Your task to perform on an android device: Open Google Maps and go to "Timeline" Image 0: 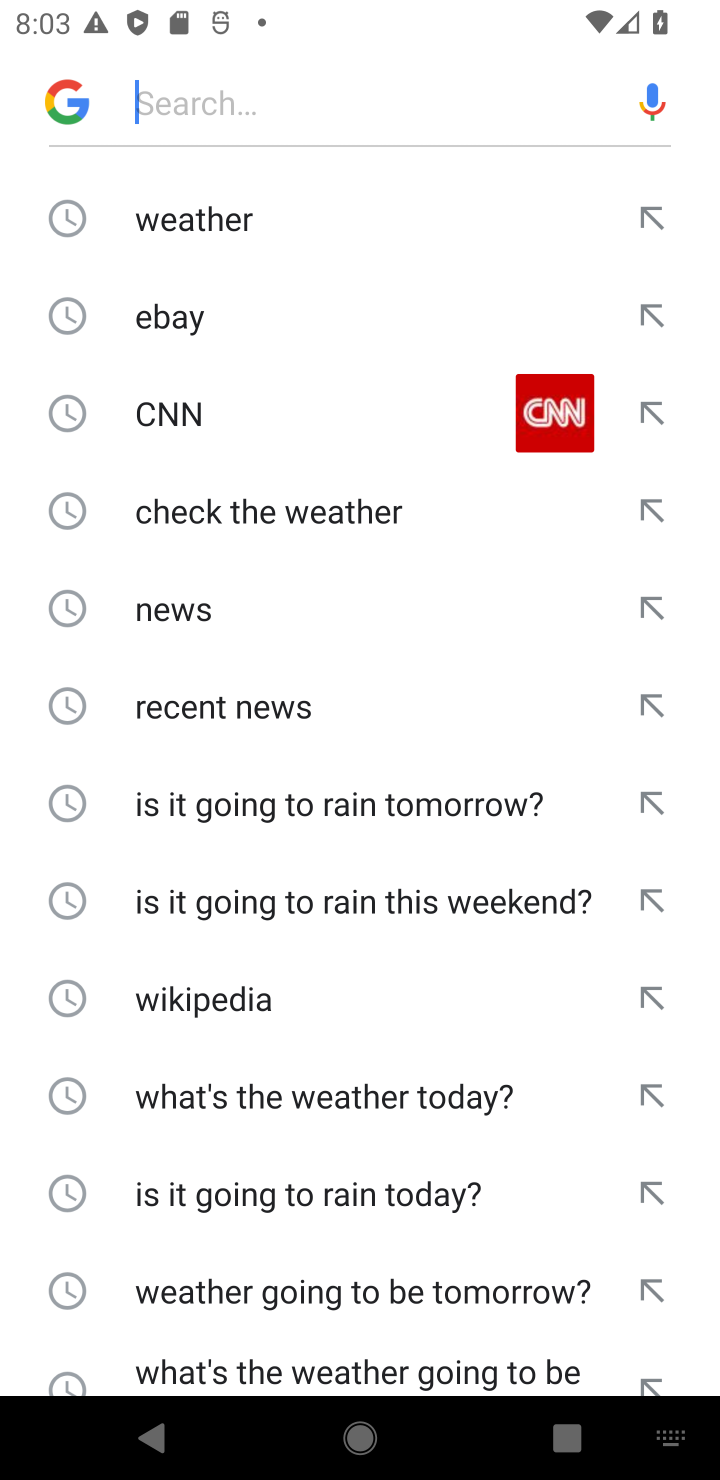
Step 0: press home button
Your task to perform on an android device: Open Google Maps and go to "Timeline" Image 1: 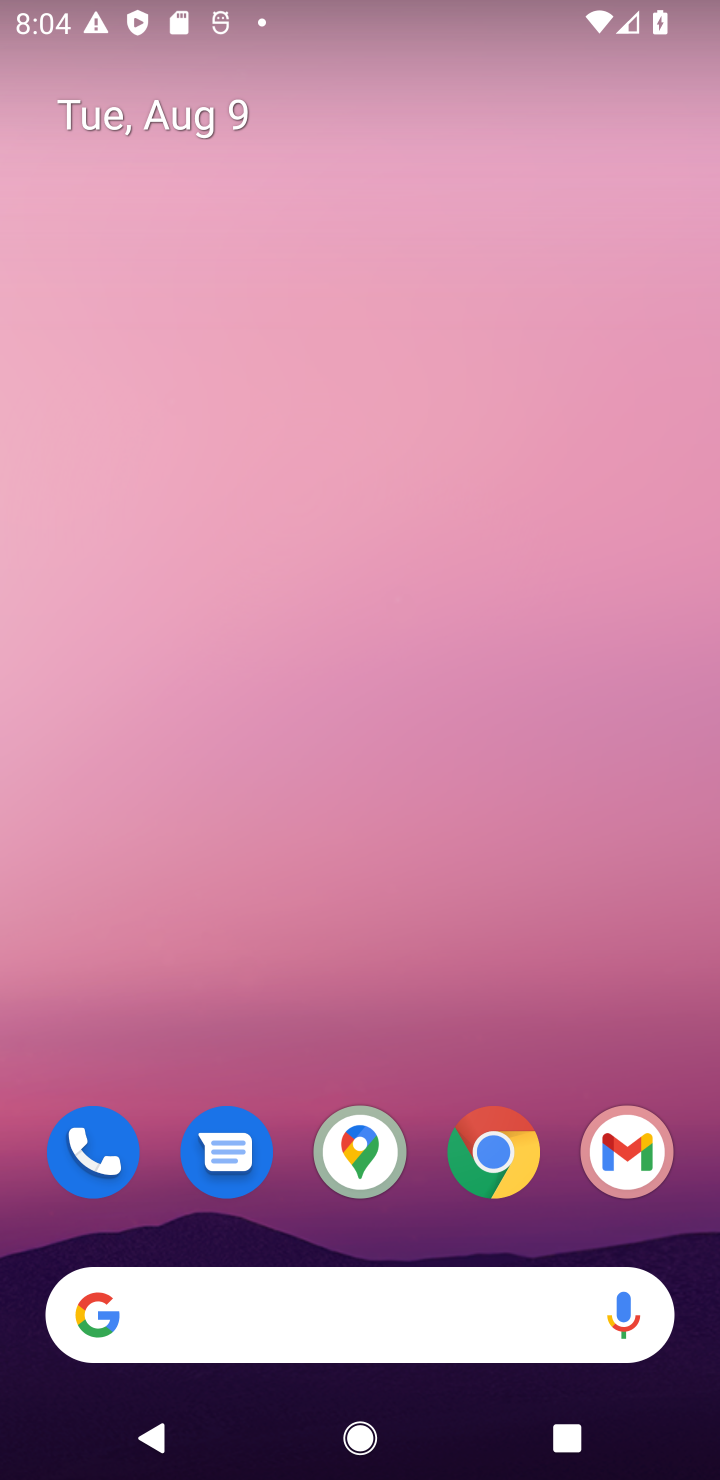
Step 1: click (358, 1141)
Your task to perform on an android device: Open Google Maps and go to "Timeline" Image 2: 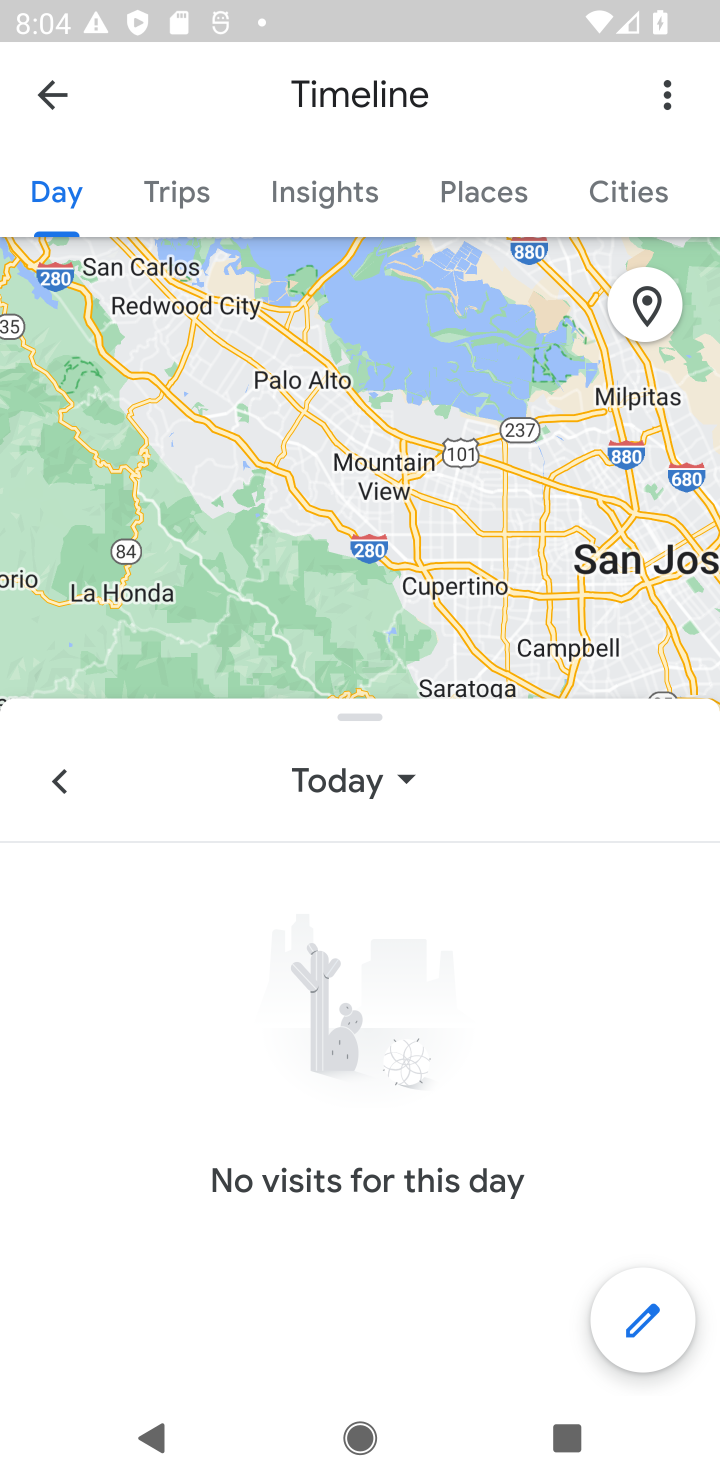
Step 2: task complete